Your task to perform on an android device: What's on my calendar tomorrow? Image 0: 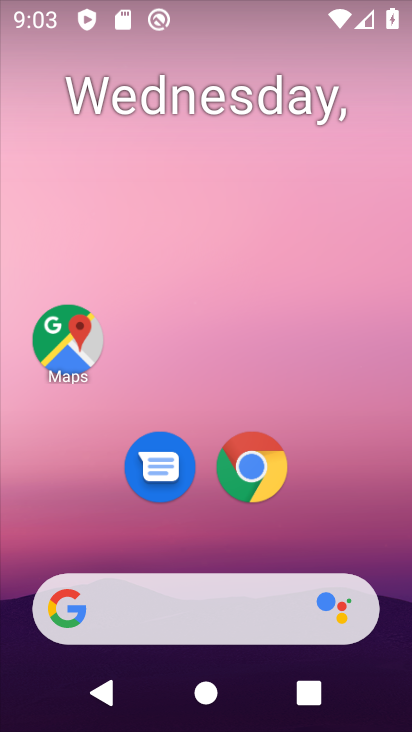
Step 0: drag from (356, 525) to (95, 29)
Your task to perform on an android device: What's on my calendar tomorrow? Image 1: 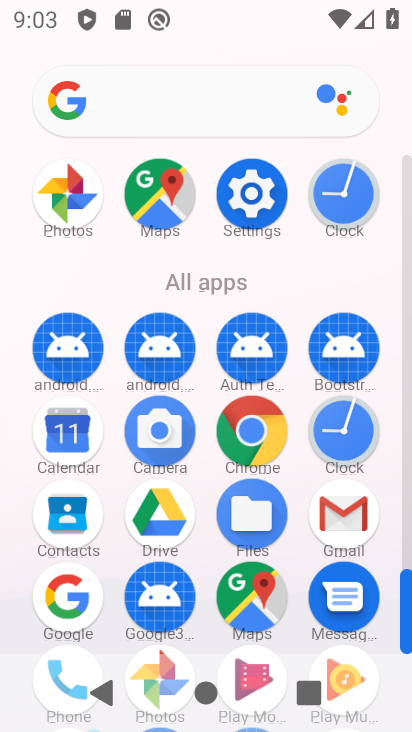
Step 1: drag from (136, 9) to (175, 59)
Your task to perform on an android device: What's on my calendar tomorrow? Image 2: 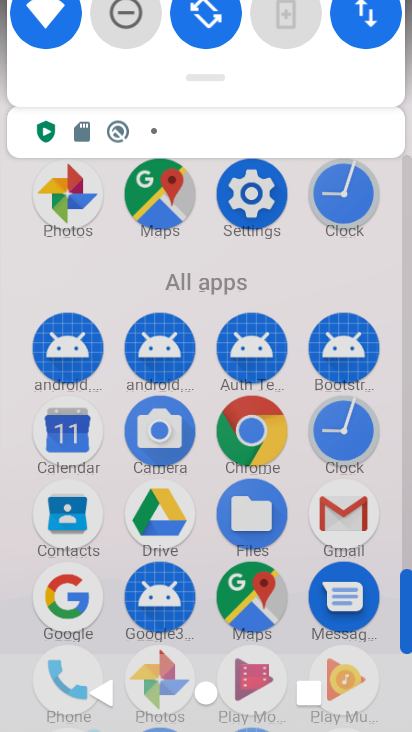
Step 2: drag from (261, 299) to (162, 107)
Your task to perform on an android device: What's on my calendar tomorrow? Image 3: 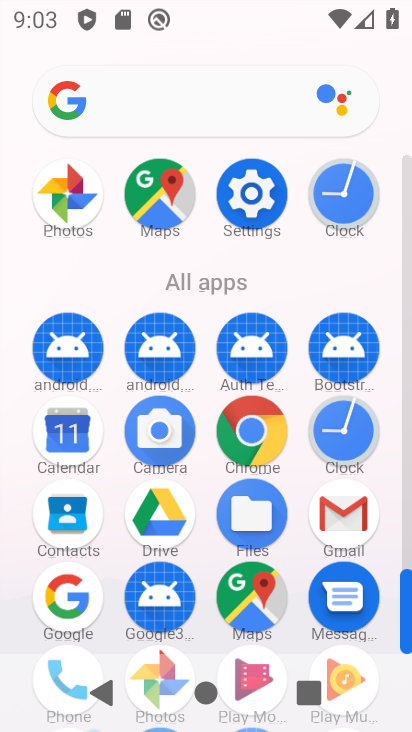
Step 3: click (61, 434)
Your task to perform on an android device: What's on my calendar tomorrow? Image 4: 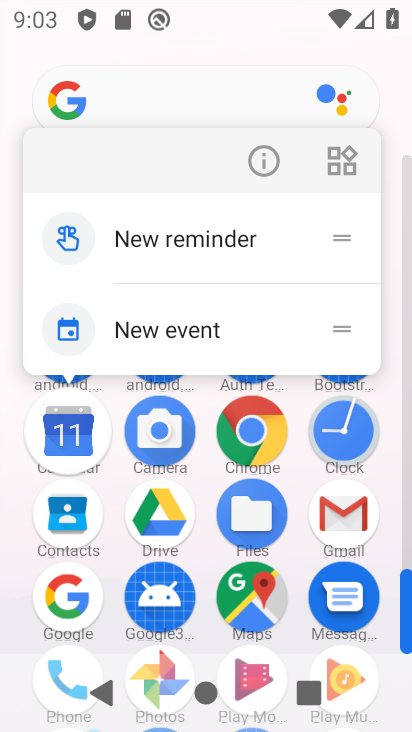
Step 4: click (61, 434)
Your task to perform on an android device: What's on my calendar tomorrow? Image 5: 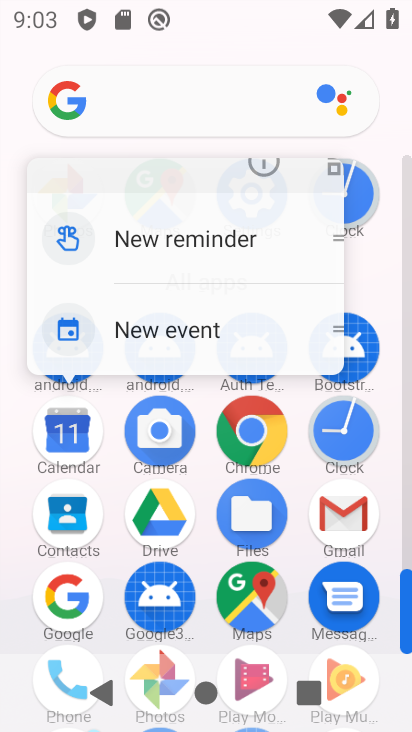
Step 5: click (63, 434)
Your task to perform on an android device: What's on my calendar tomorrow? Image 6: 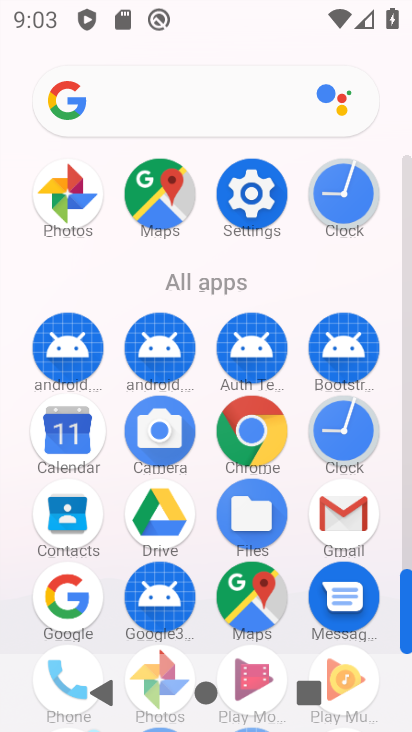
Step 6: click (64, 434)
Your task to perform on an android device: What's on my calendar tomorrow? Image 7: 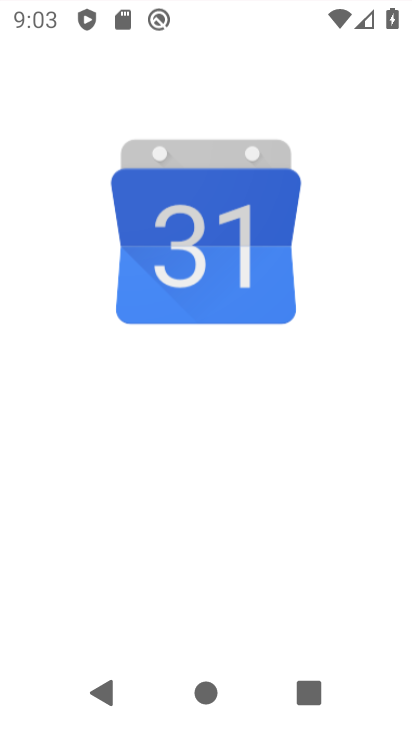
Step 7: click (73, 428)
Your task to perform on an android device: What's on my calendar tomorrow? Image 8: 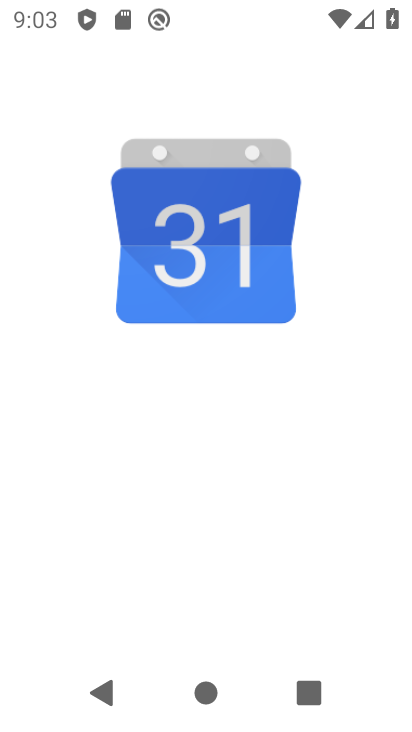
Step 8: click (73, 428)
Your task to perform on an android device: What's on my calendar tomorrow? Image 9: 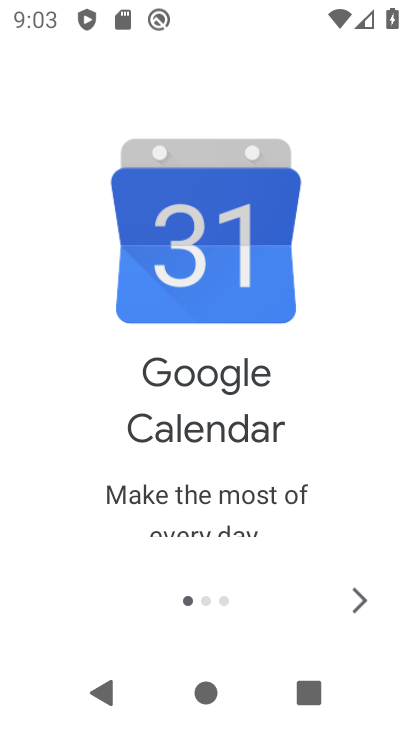
Step 9: click (361, 580)
Your task to perform on an android device: What's on my calendar tomorrow? Image 10: 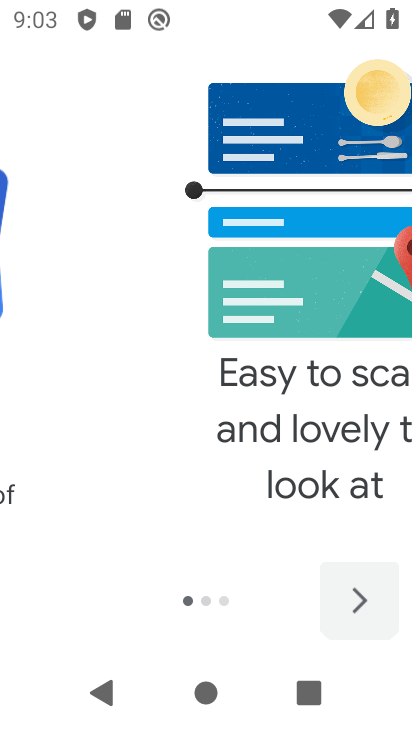
Step 10: click (358, 589)
Your task to perform on an android device: What's on my calendar tomorrow? Image 11: 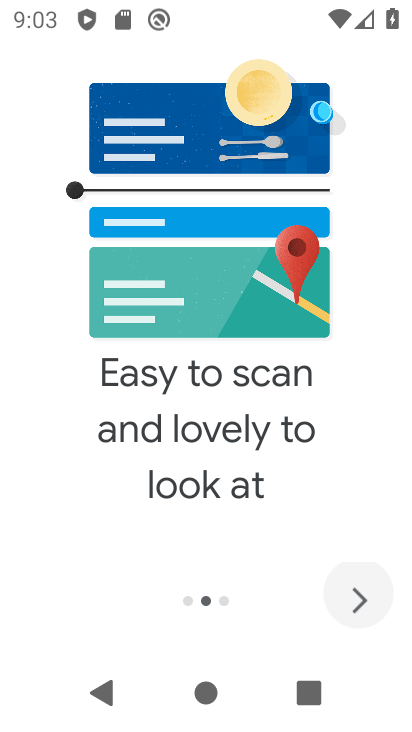
Step 11: click (360, 590)
Your task to perform on an android device: What's on my calendar tomorrow? Image 12: 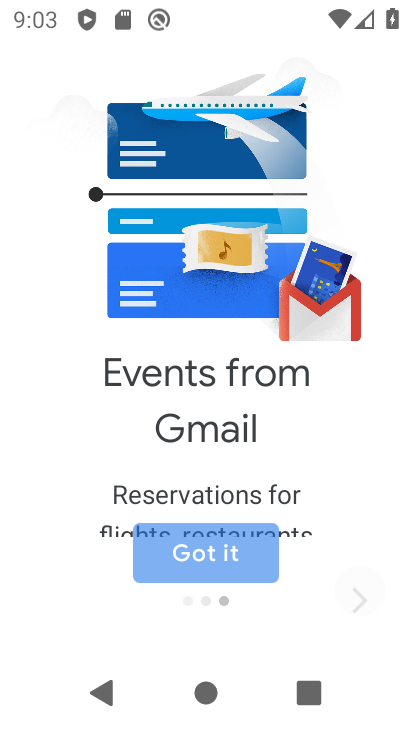
Step 12: click (361, 589)
Your task to perform on an android device: What's on my calendar tomorrow? Image 13: 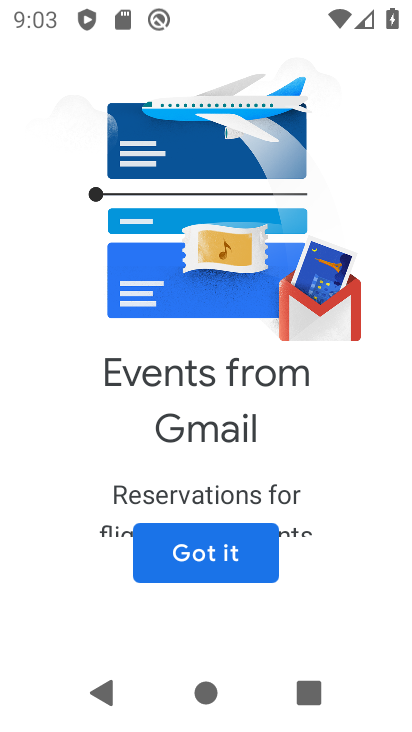
Step 13: click (251, 548)
Your task to perform on an android device: What's on my calendar tomorrow? Image 14: 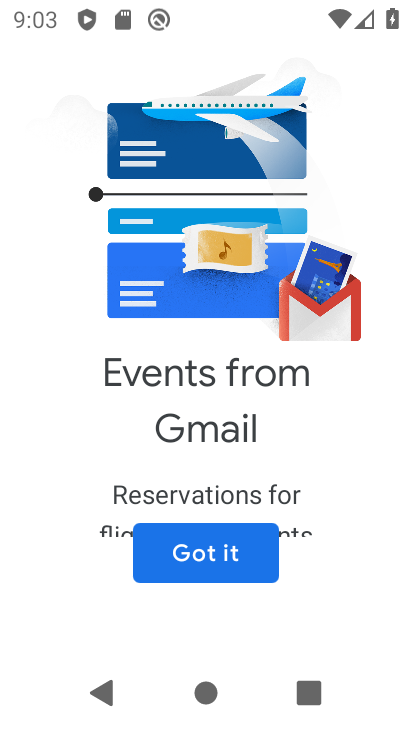
Step 14: click (233, 554)
Your task to perform on an android device: What's on my calendar tomorrow? Image 15: 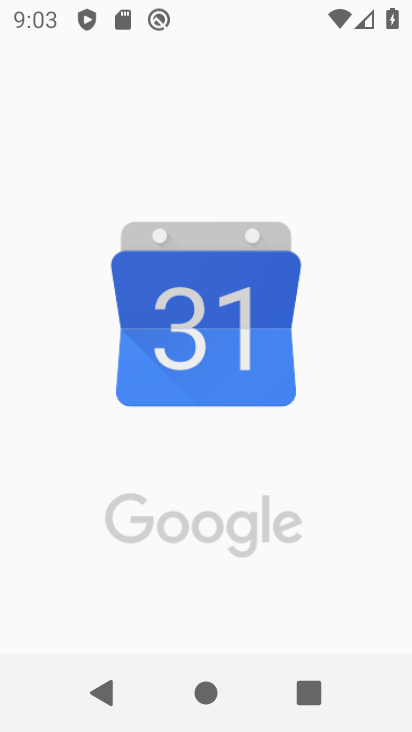
Step 15: click (234, 553)
Your task to perform on an android device: What's on my calendar tomorrow? Image 16: 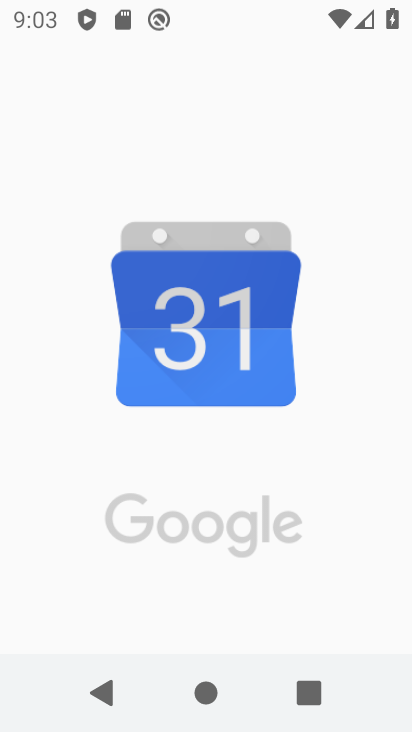
Step 16: click (234, 553)
Your task to perform on an android device: What's on my calendar tomorrow? Image 17: 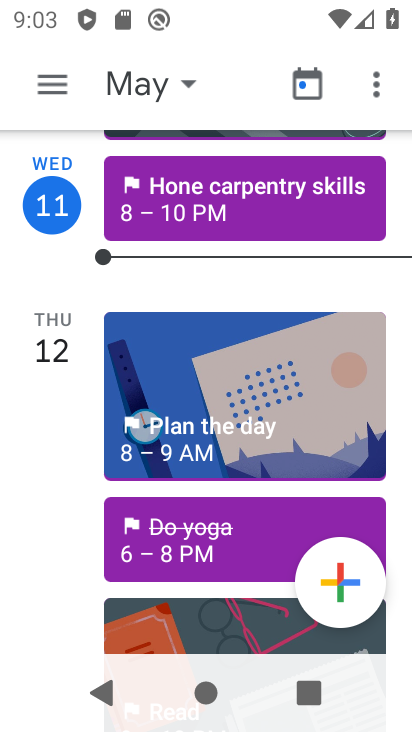
Step 17: task complete